Your task to perform on an android device: turn pop-ups off in chrome Image 0: 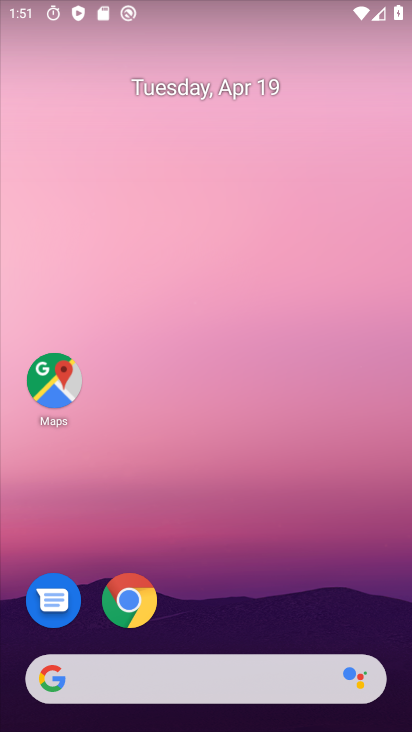
Step 0: drag from (259, 666) to (375, 309)
Your task to perform on an android device: turn pop-ups off in chrome Image 1: 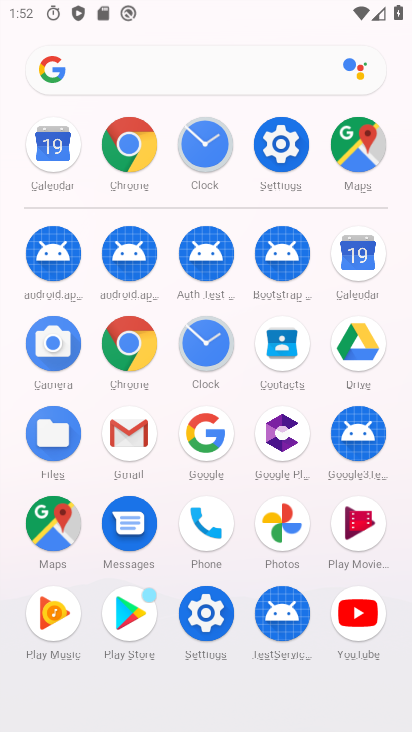
Step 1: click (116, 172)
Your task to perform on an android device: turn pop-ups off in chrome Image 2: 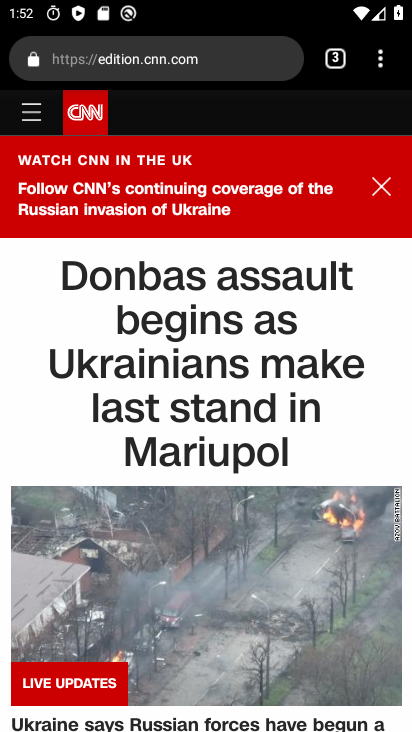
Step 2: click (374, 67)
Your task to perform on an android device: turn pop-ups off in chrome Image 3: 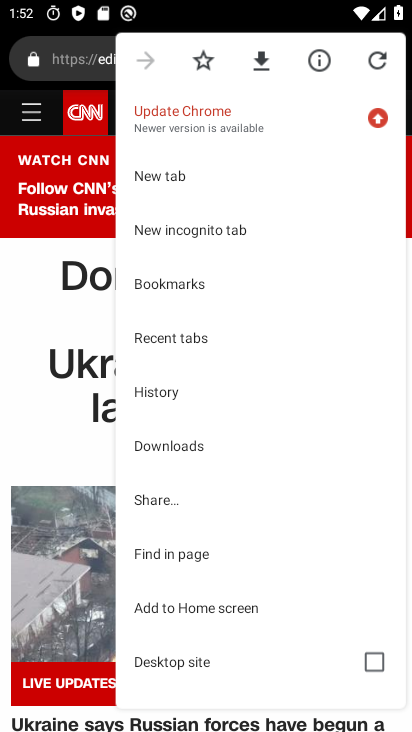
Step 3: drag from (177, 680) to (217, 466)
Your task to perform on an android device: turn pop-ups off in chrome Image 4: 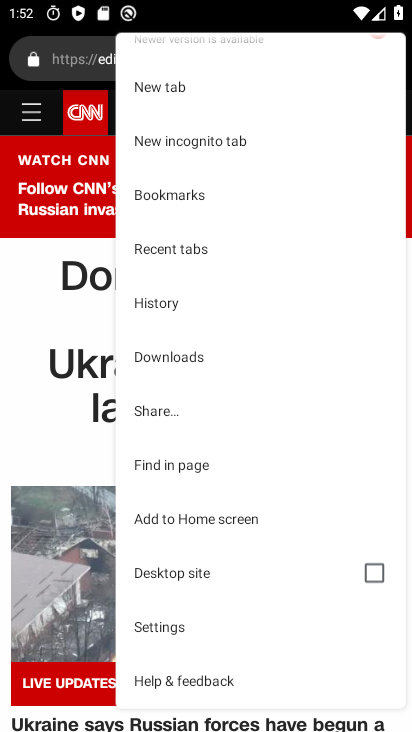
Step 4: click (159, 634)
Your task to perform on an android device: turn pop-ups off in chrome Image 5: 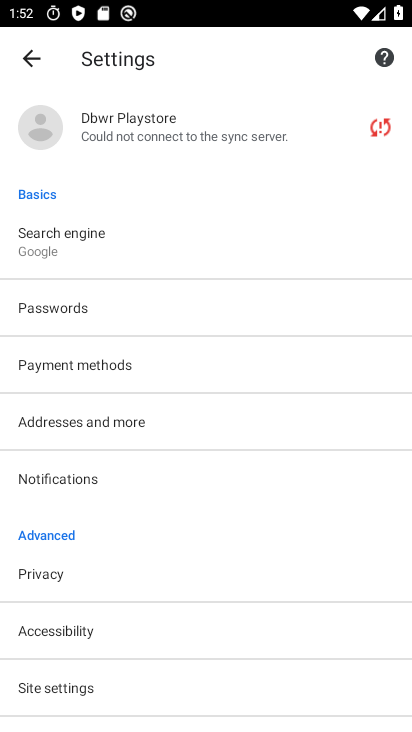
Step 5: click (61, 689)
Your task to perform on an android device: turn pop-ups off in chrome Image 6: 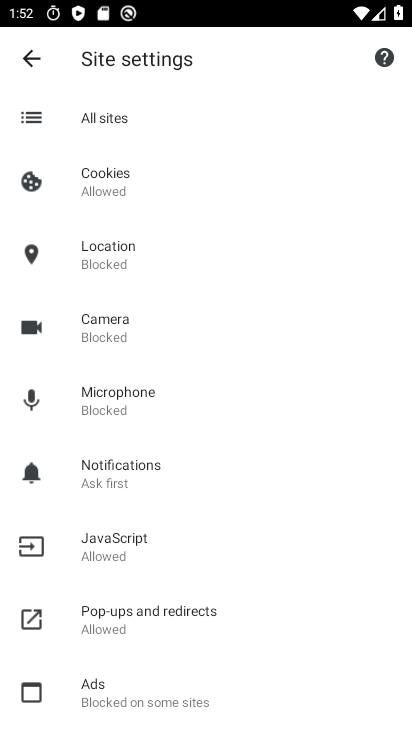
Step 6: click (137, 604)
Your task to perform on an android device: turn pop-ups off in chrome Image 7: 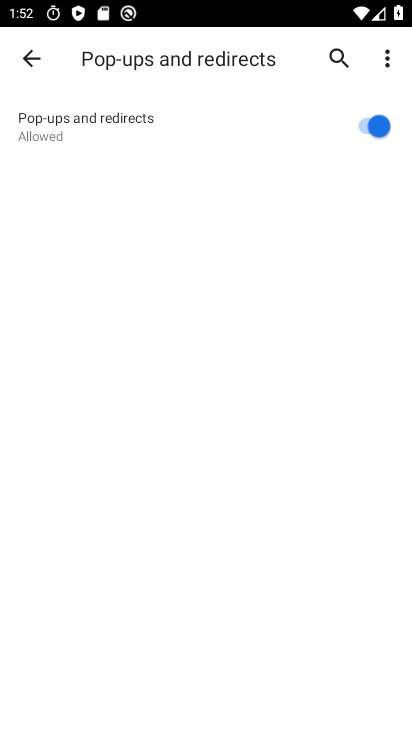
Step 7: click (365, 136)
Your task to perform on an android device: turn pop-ups off in chrome Image 8: 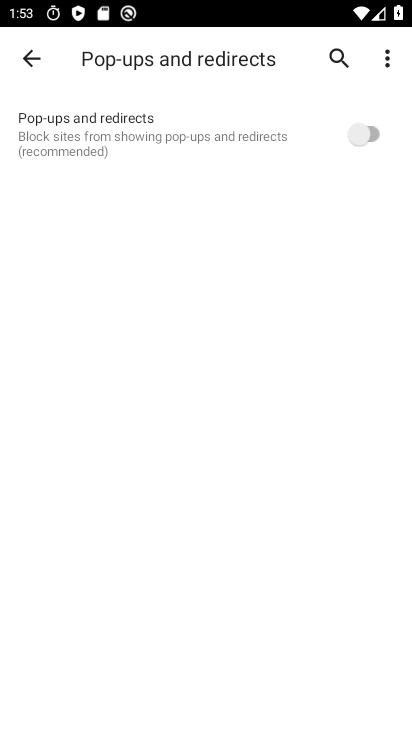
Step 8: task complete